Your task to perform on an android device: Go to Wikipedia Image 0: 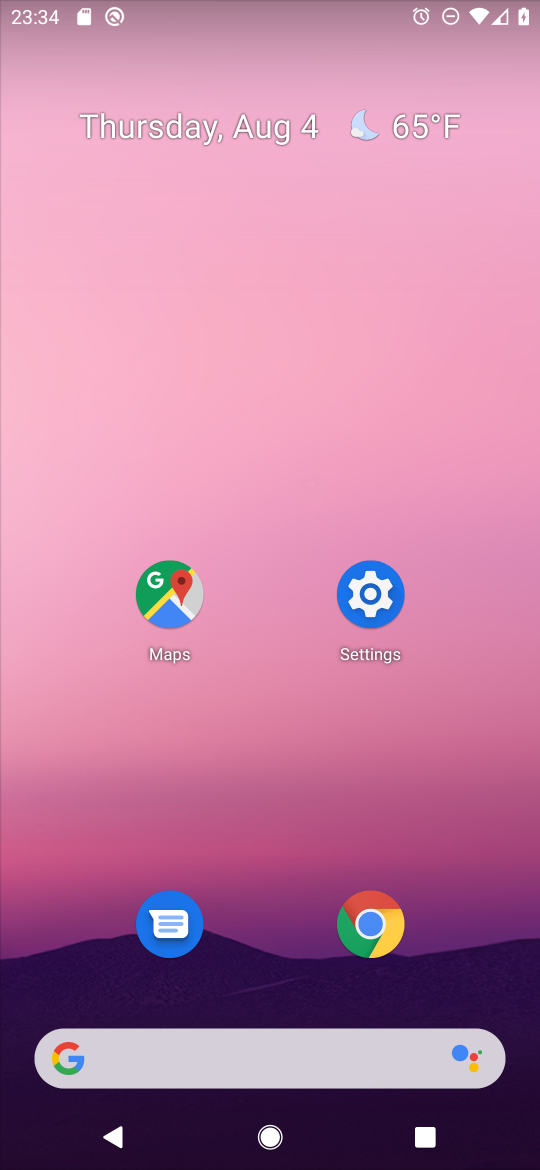
Step 0: click (376, 928)
Your task to perform on an android device: Go to Wikipedia Image 1: 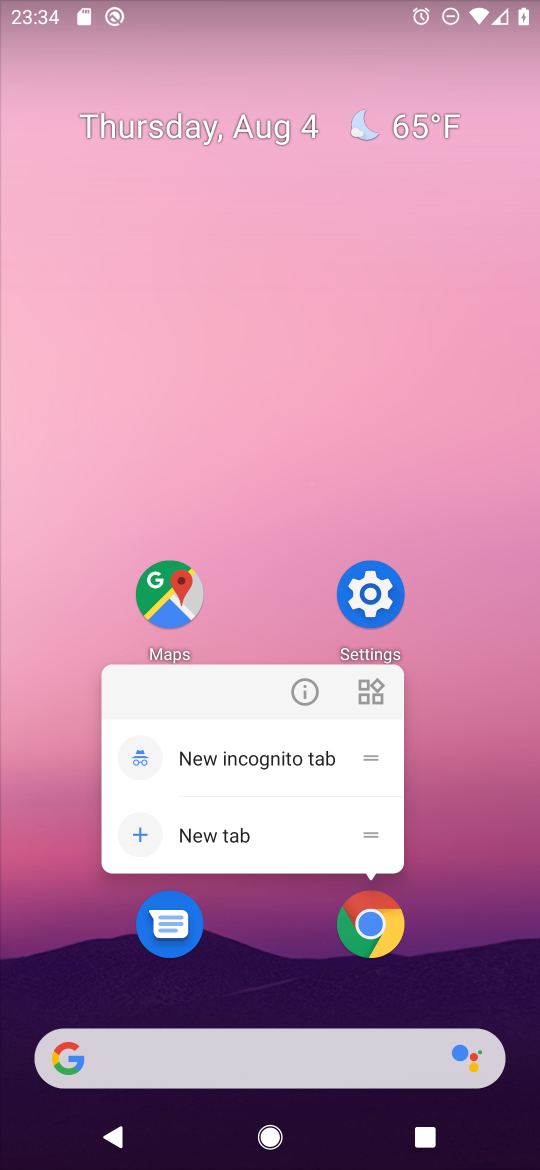
Step 1: click (376, 928)
Your task to perform on an android device: Go to Wikipedia Image 2: 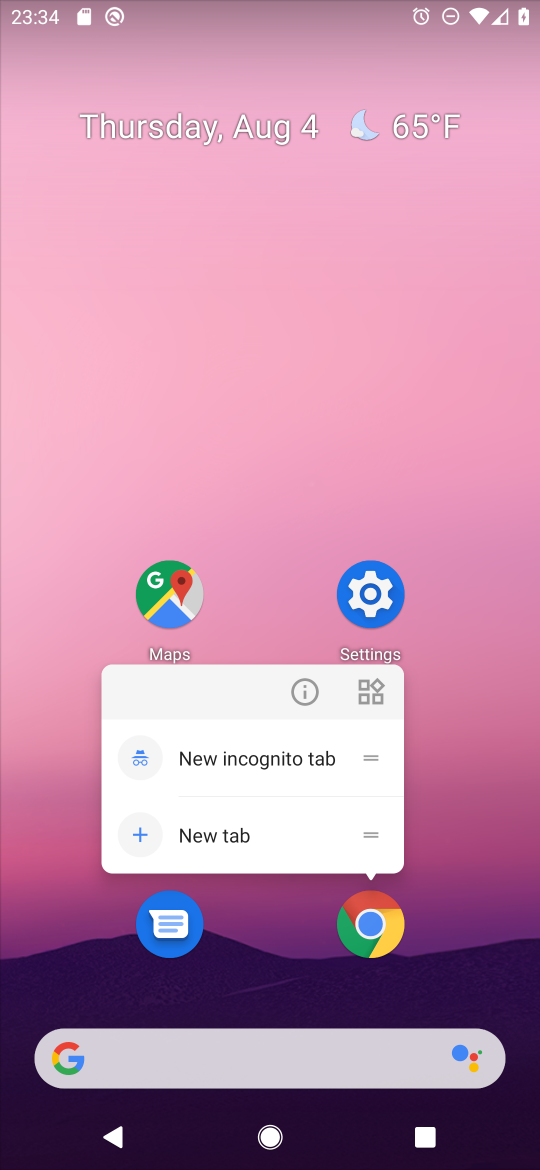
Step 2: click (376, 933)
Your task to perform on an android device: Go to Wikipedia Image 3: 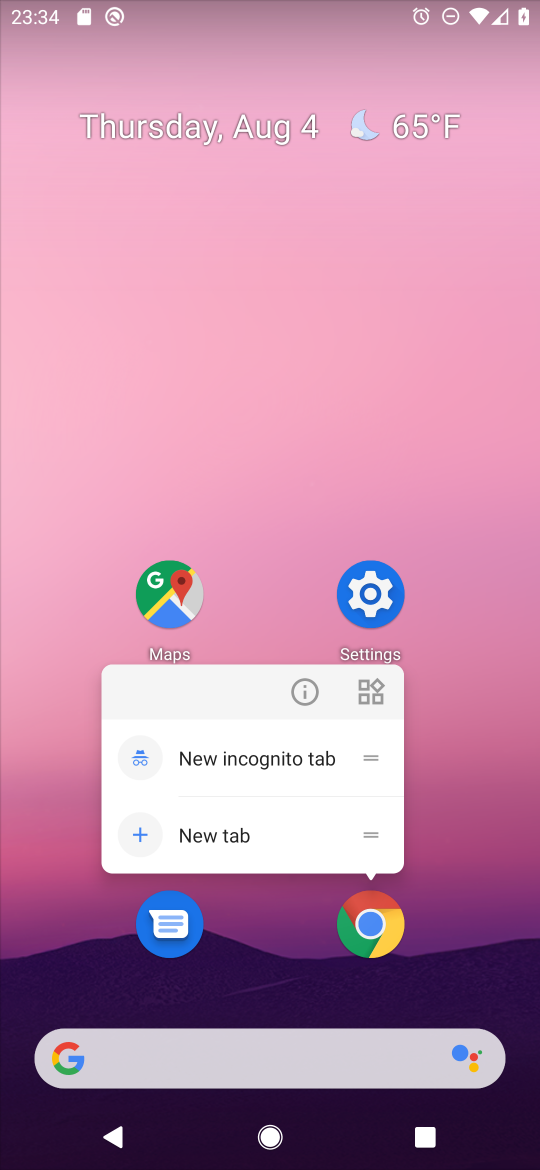
Step 3: click (376, 932)
Your task to perform on an android device: Go to Wikipedia Image 4: 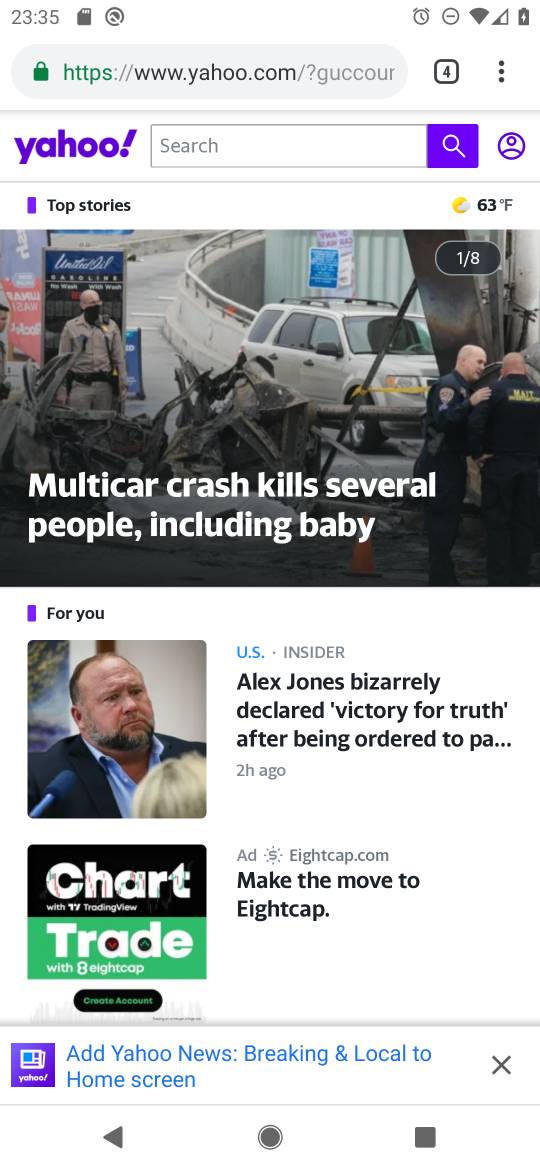
Step 4: drag from (502, 72) to (356, 149)
Your task to perform on an android device: Go to Wikipedia Image 5: 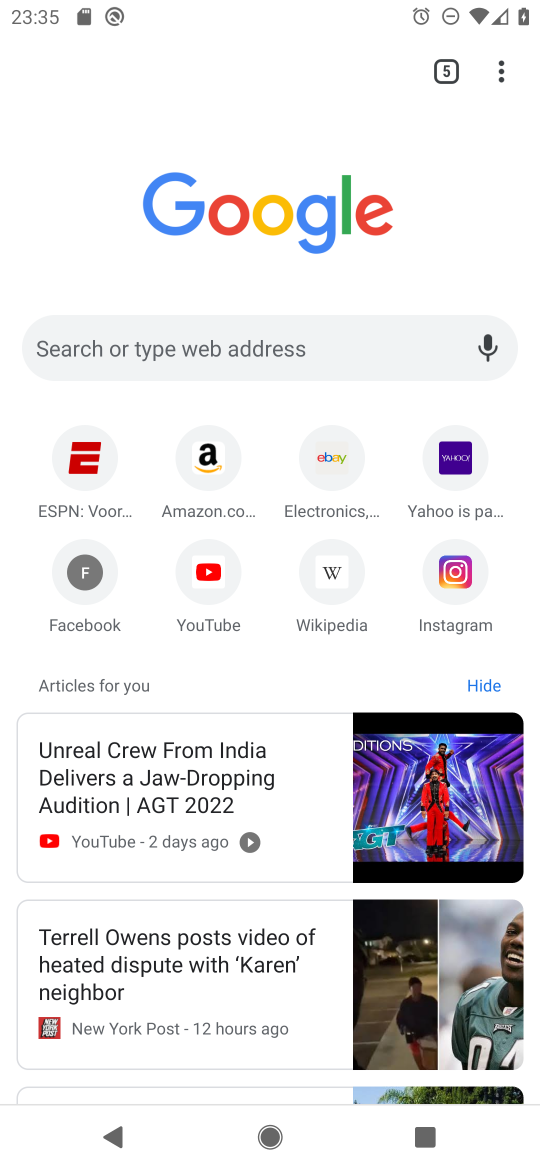
Step 5: click (333, 571)
Your task to perform on an android device: Go to Wikipedia Image 6: 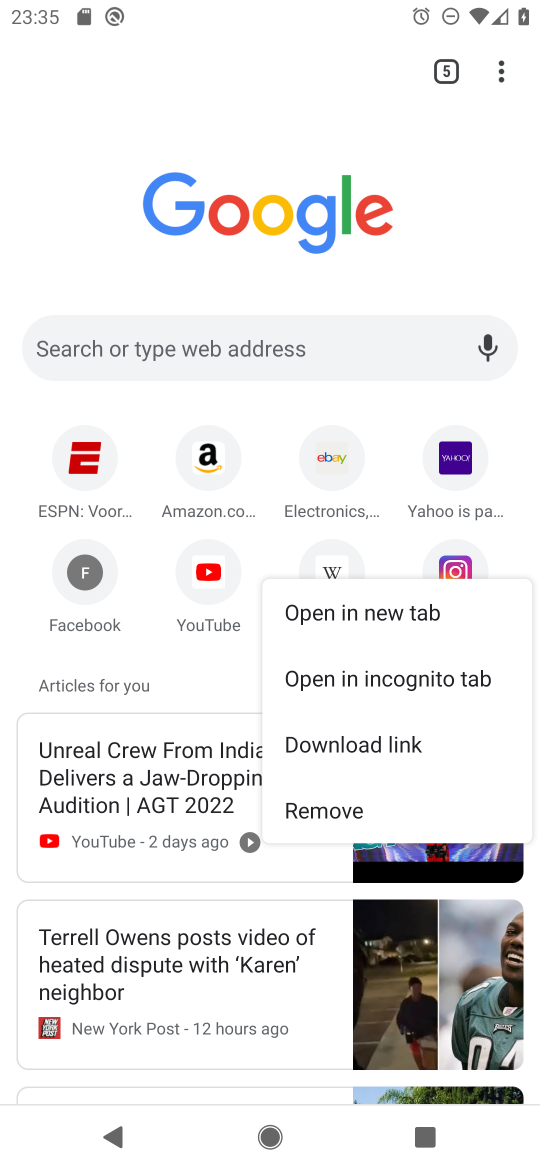
Step 6: click (333, 562)
Your task to perform on an android device: Go to Wikipedia Image 7: 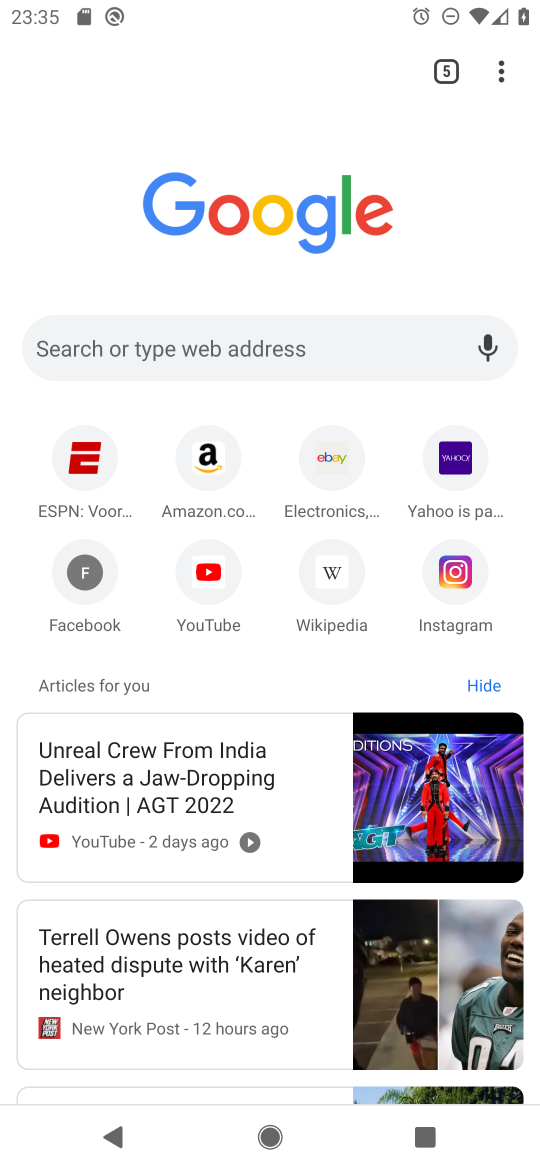
Step 7: click (333, 567)
Your task to perform on an android device: Go to Wikipedia Image 8: 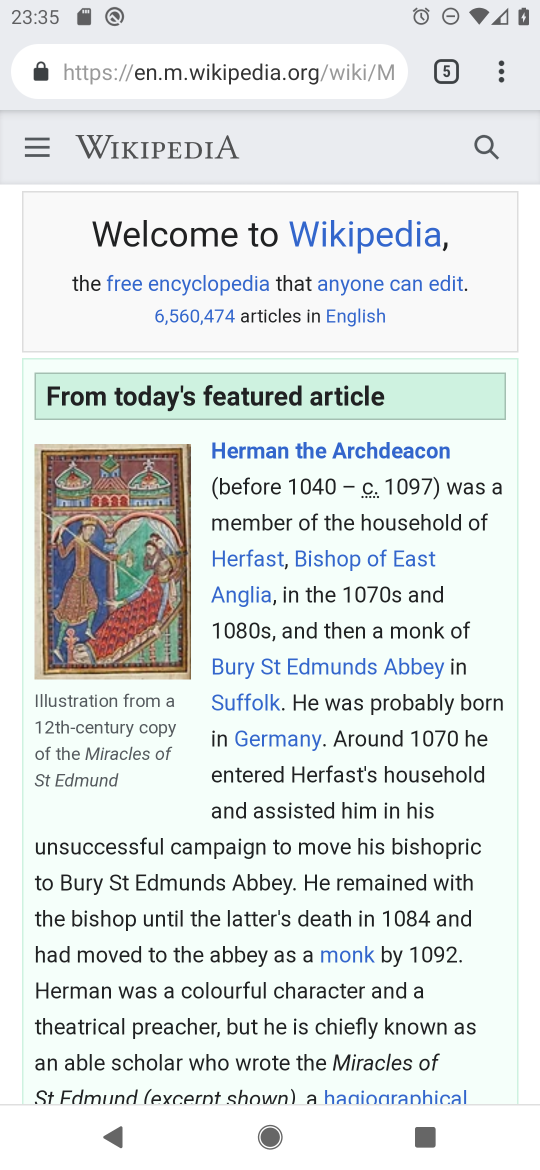
Step 8: task complete